Your task to perform on an android device: turn off location history Image 0: 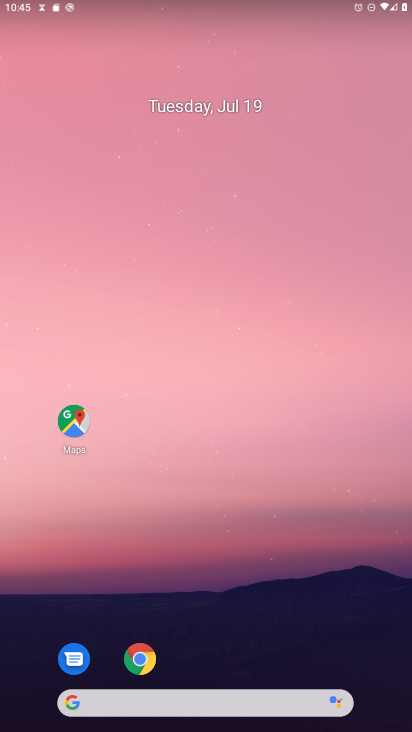
Step 0: drag from (214, 660) to (224, 163)
Your task to perform on an android device: turn off location history Image 1: 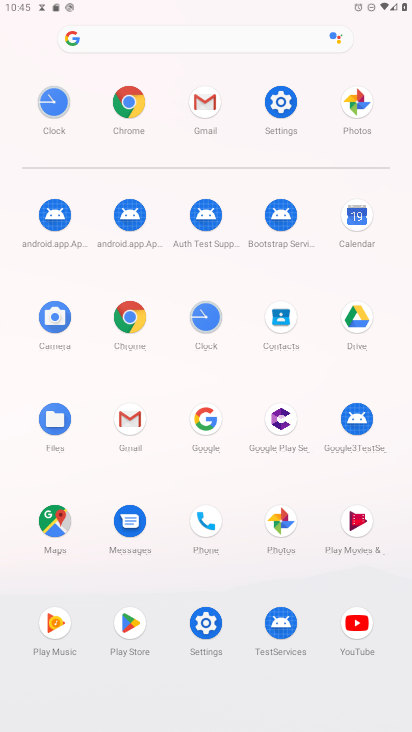
Step 1: click (267, 93)
Your task to perform on an android device: turn off location history Image 2: 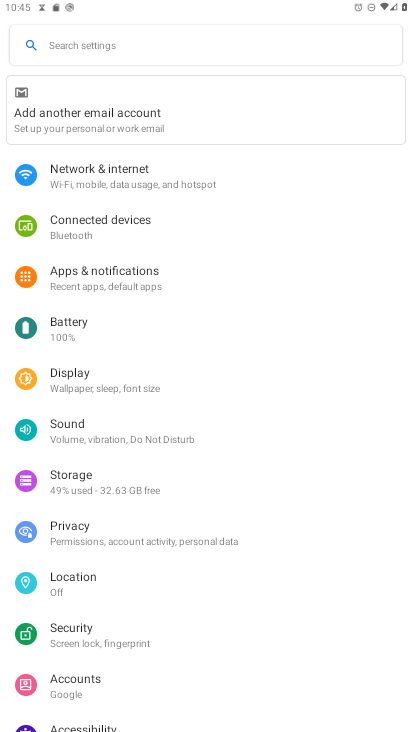
Step 2: click (95, 575)
Your task to perform on an android device: turn off location history Image 3: 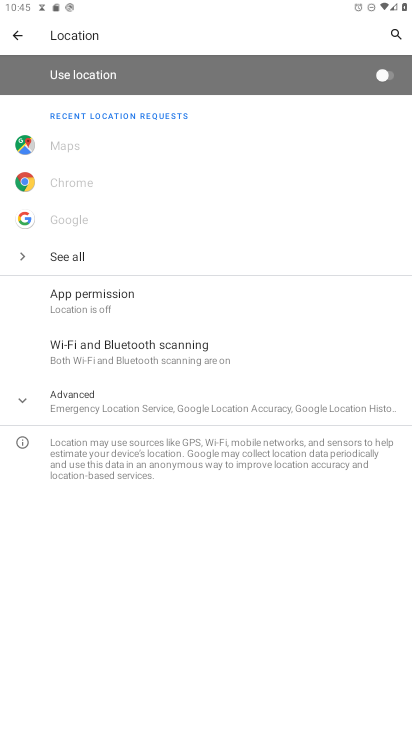
Step 3: click (136, 402)
Your task to perform on an android device: turn off location history Image 4: 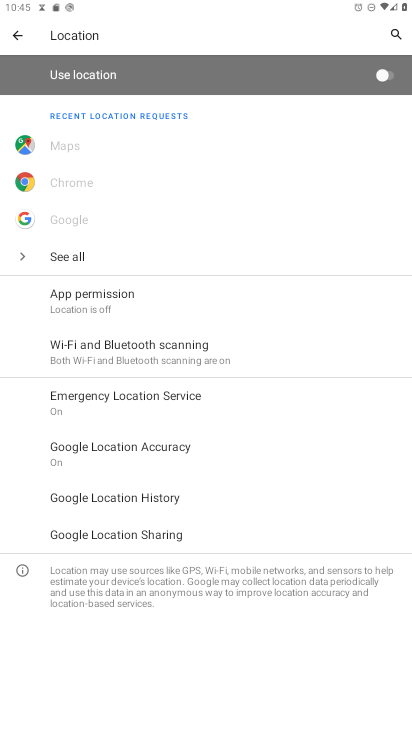
Step 4: click (169, 492)
Your task to perform on an android device: turn off location history Image 5: 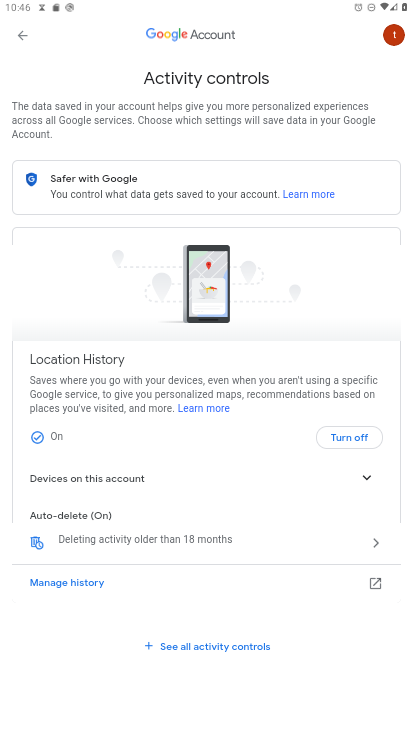
Step 5: click (343, 428)
Your task to perform on an android device: turn off location history Image 6: 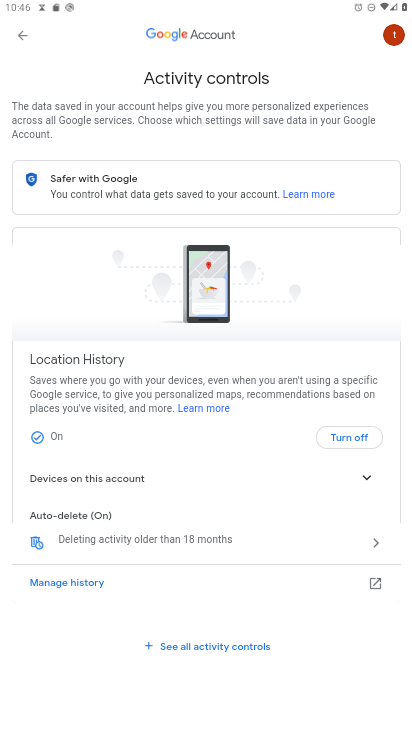
Step 6: click (343, 428)
Your task to perform on an android device: turn off location history Image 7: 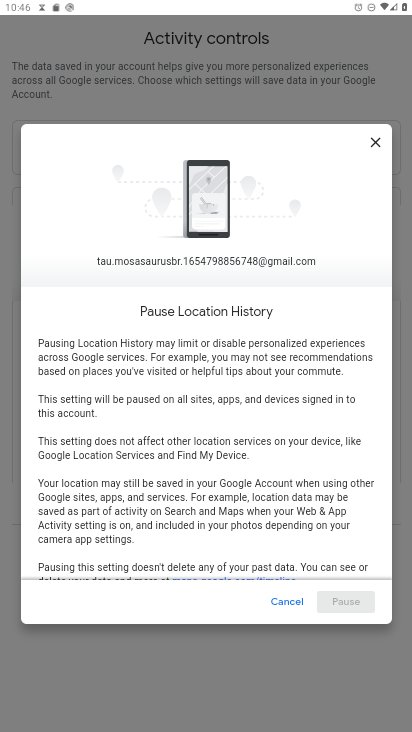
Step 7: click (290, 591)
Your task to perform on an android device: turn off location history Image 8: 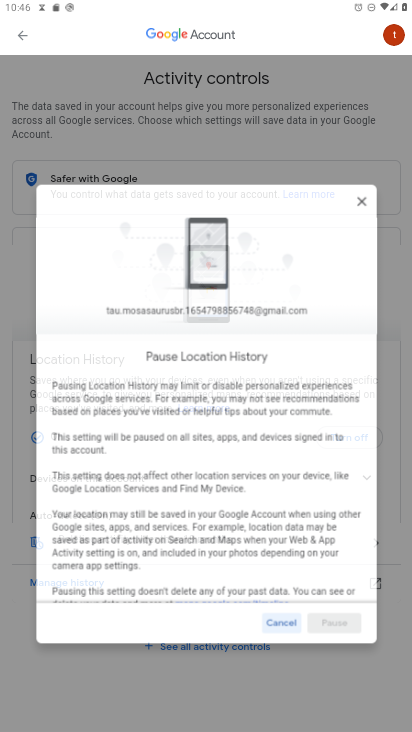
Step 8: task complete